Your task to perform on an android device: read, delete, or share a saved page in the chrome app Image 0: 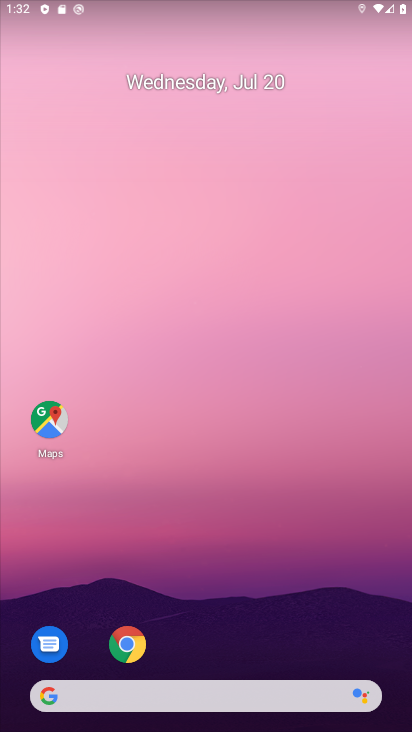
Step 0: click (124, 642)
Your task to perform on an android device: read, delete, or share a saved page in the chrome app Image 1: 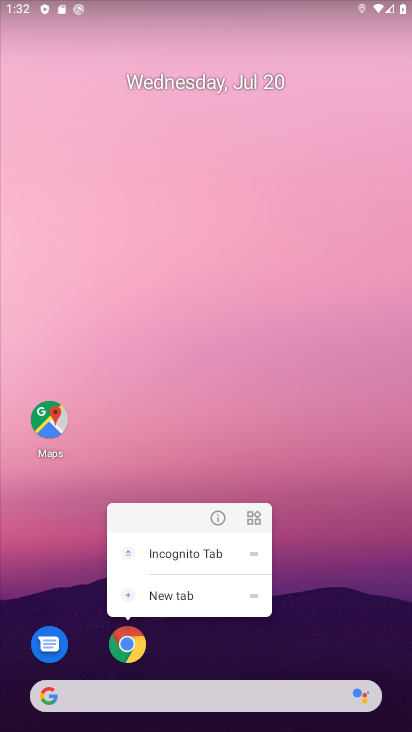
Step 1: click (122, 650)
Your task to perform on an android device: read, delete, or share a saved page in the chrome app Image 2: 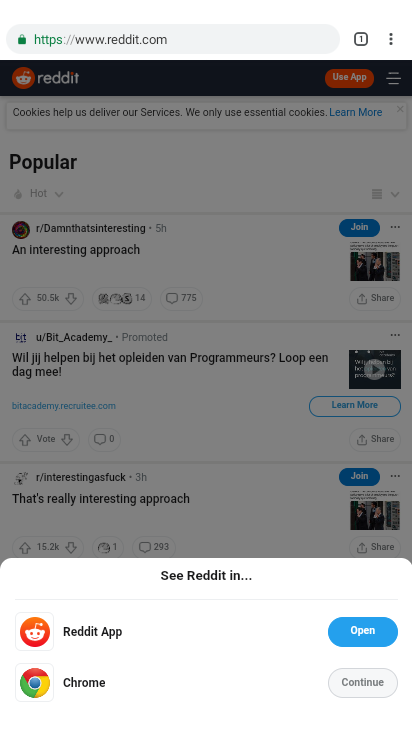
Step 2: click (392, 40)
Your task to perform on an android device: read, delete, or share a saved page in the chrome app Image 3: 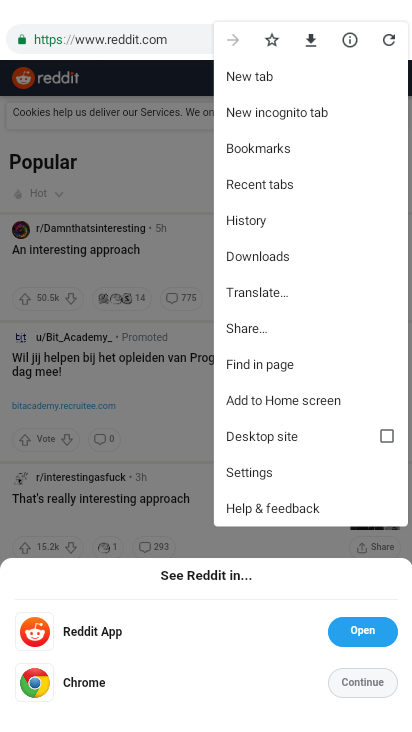
Step 3: click (269, 246)
Your task to perform on an android device: read, delete, or share a saved page in the chrome app Image 4: 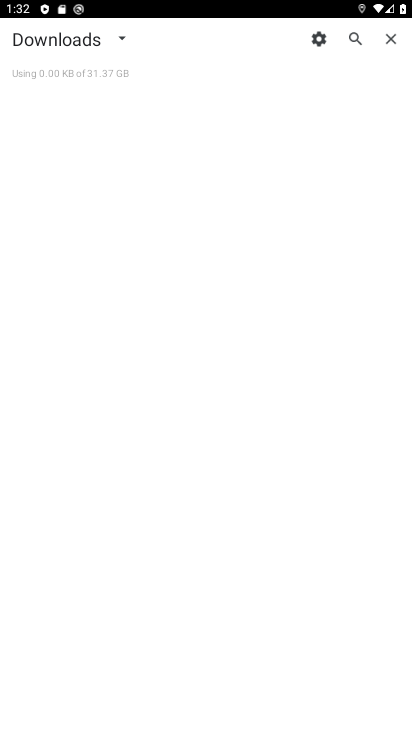
Step 4: click (106, 40)
Your task to perform on an android device: read, delete, or share a saved page in the chrome app Image 5: 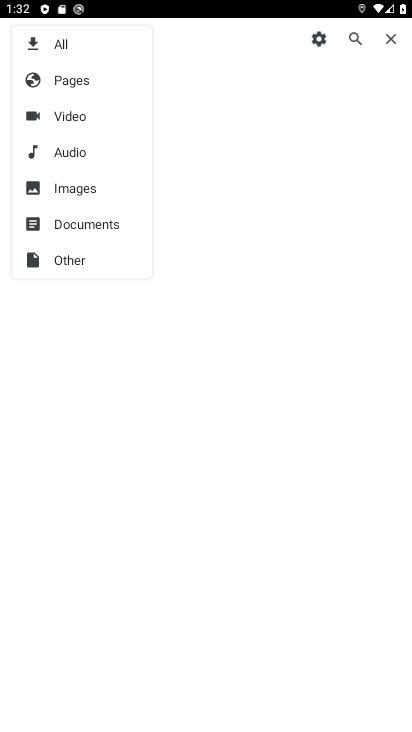
Step 5: click (84, 89)
Your task to perform on an android device: read, delete, or share a saved page in the chrome app Image 6: 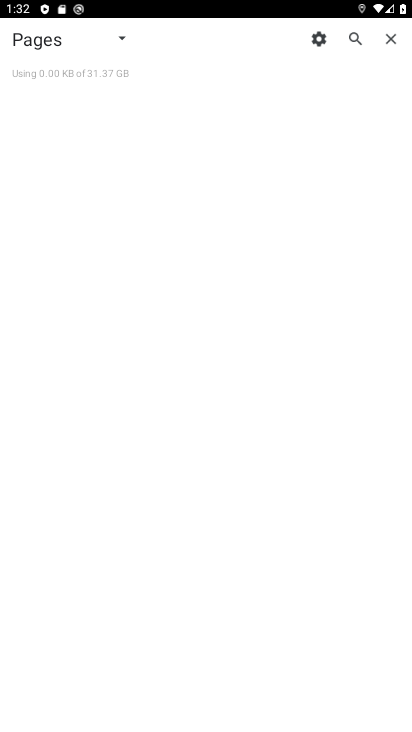
Step 6: task complete